Your task to perform on an android device: turn off data saver in the chrome app Image 0: 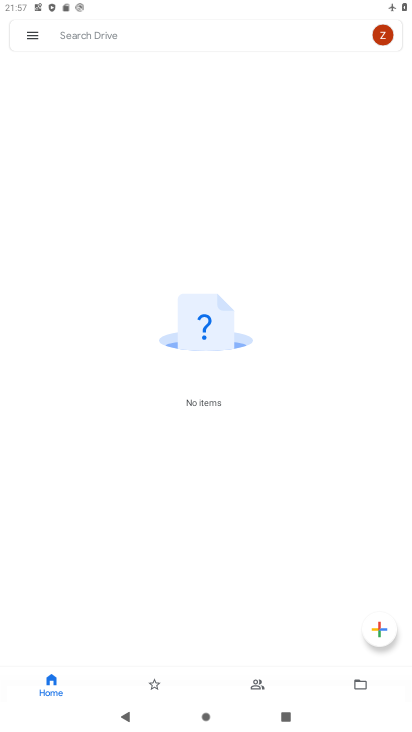
Step 0: press home button
Your task to perform on an android device: turn off data saver in the chrome app Image 1: 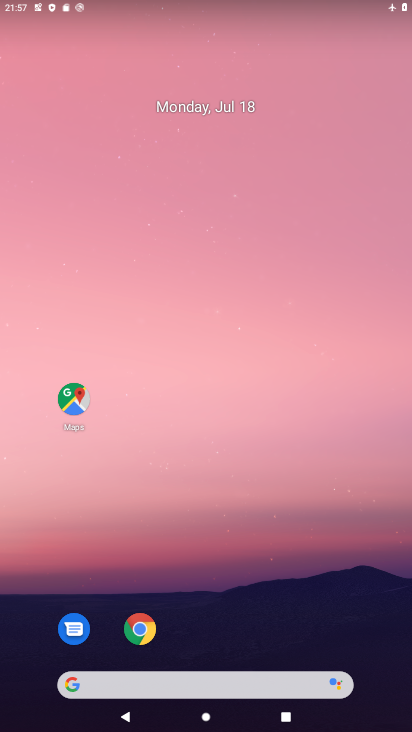
Step 1: drag from (305, 623) to (271, 281)
Your task to perform on an android device: turn off data saver in the chrome app Image 2: 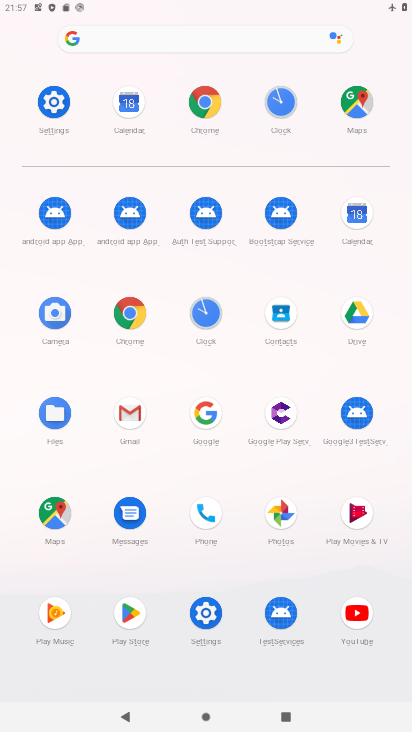
Step 2: click (132, 315)
Your task to perform on an android device: turn off data saver in the chrome app Image 3: 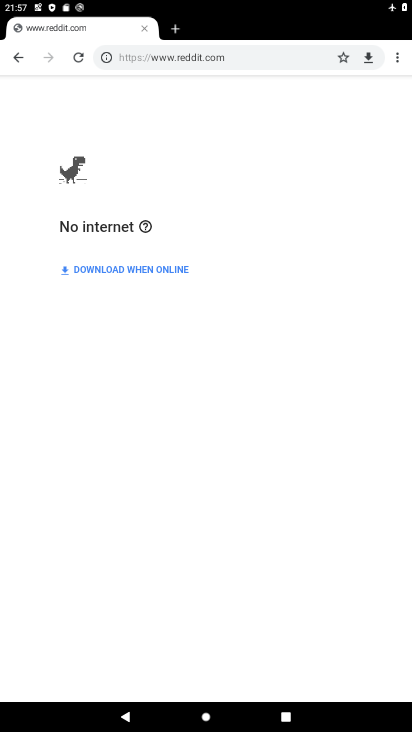
Step 3: drag from (404, 48) to (289, 383)
Your task to perform on an android device: turn off data saver in the chrome app Image 4: 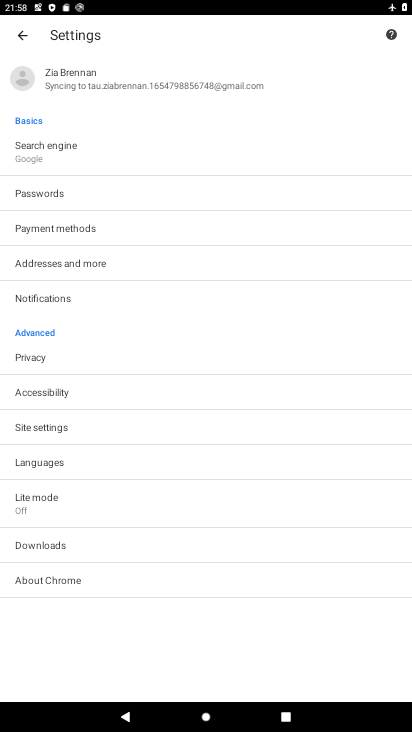
Step 4: click (54, 500)
Your task to perform on an android device: turn off data saver in the chrome app Image 5: 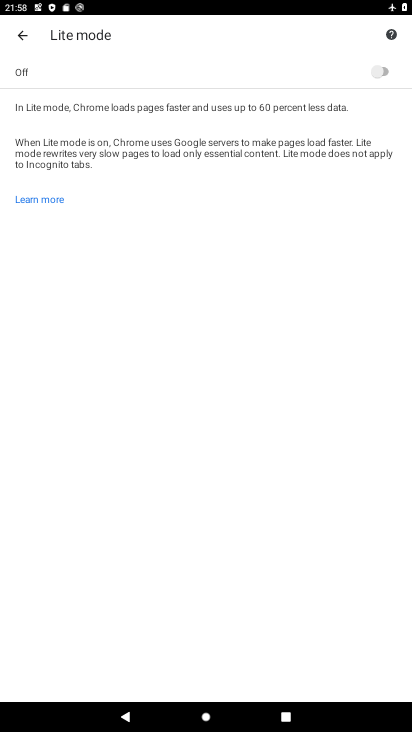
Step 5: task complete